Your task to perform on an android device: Open accessibility settings Image 0: 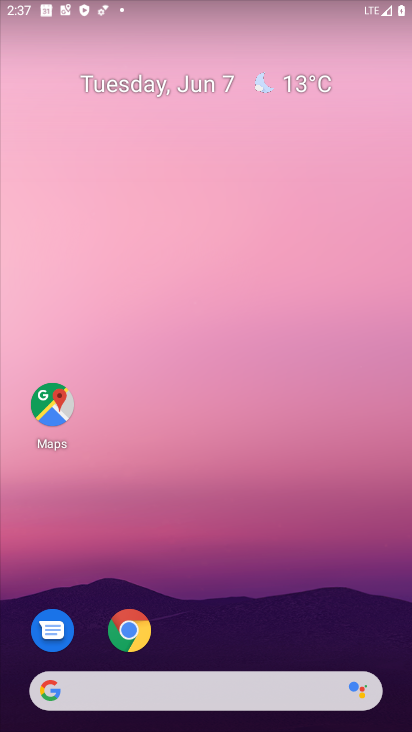
Step 0: drag from (279, 573) to (397, 32)
Your task to perform on an android device: Open accessibility settings Image 1: 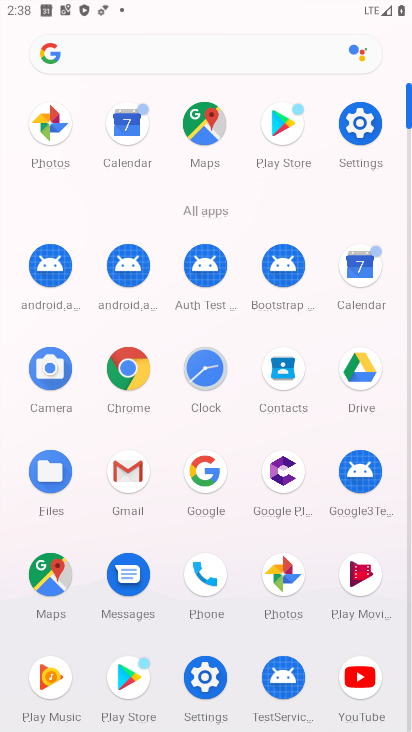
Step 1: drag from (272, 570) to (373, 132)
Your task to perform on an android device: Open accessibility settings Image 2: 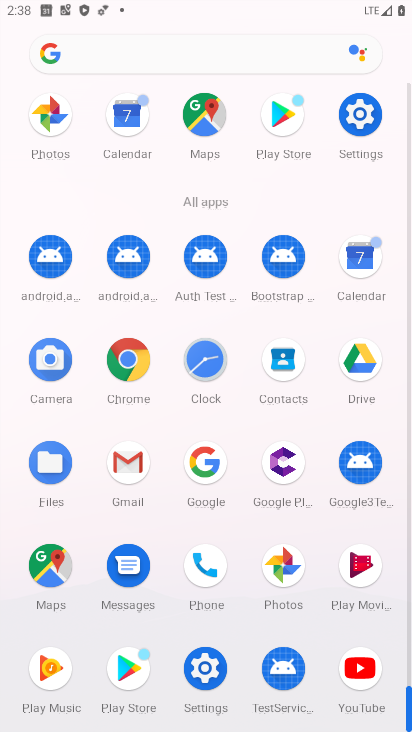
Step 2: click (373, 132)
Your task to perform on an android device: Open accessibility settings Image 3: 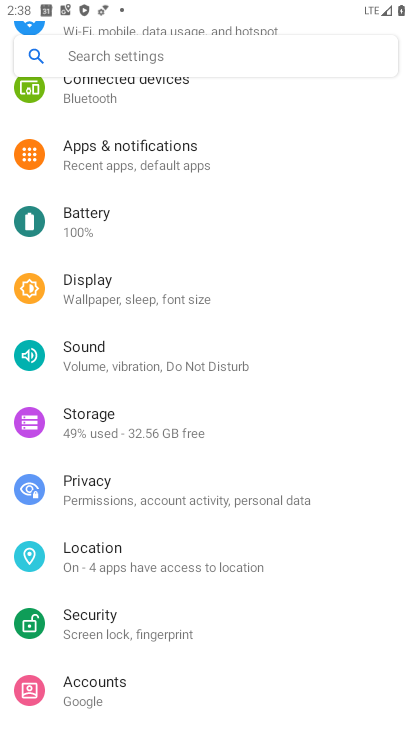
Step 3: click (356, 125)
Your task to perform on an android device: Open accessibility settings Image 4: 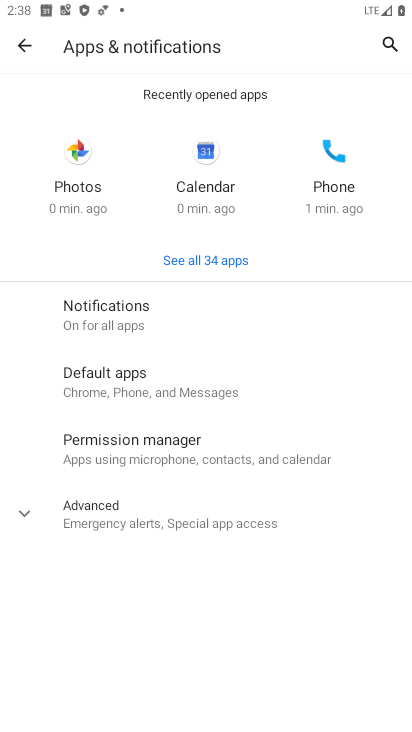
Step 4: press back button
Your task to perform on an android device: Open accessibility settings Image 5: 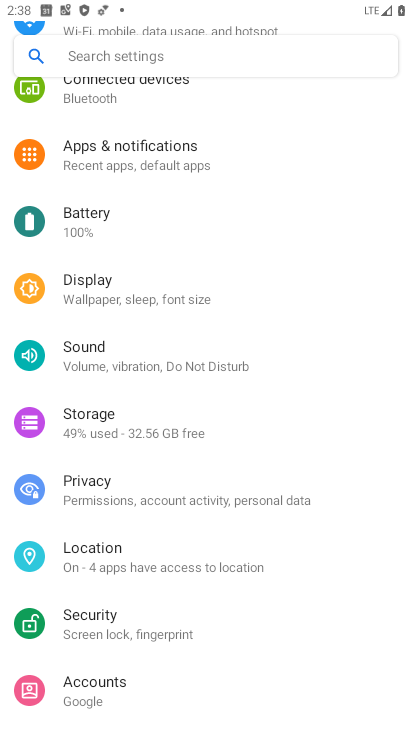
Step 5: drag from (293, 145) to (298, 508)
Your task to perform on an android device: Open accessibility settings Image 6: 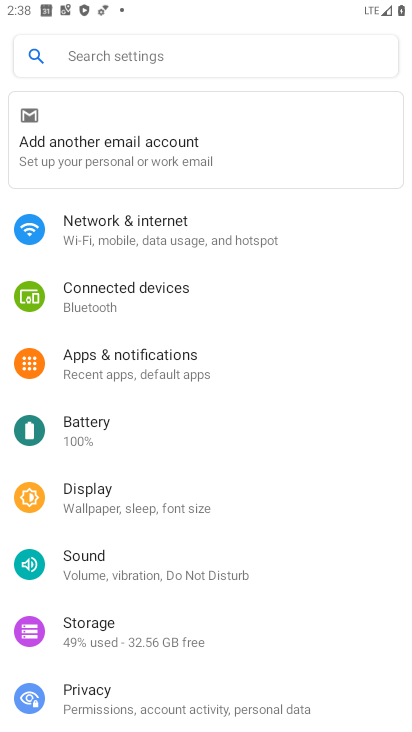
Step 6: drag from (372, 687) to (392, 392)
Your task to perform on an android device: Open accessibility settings Image 7: 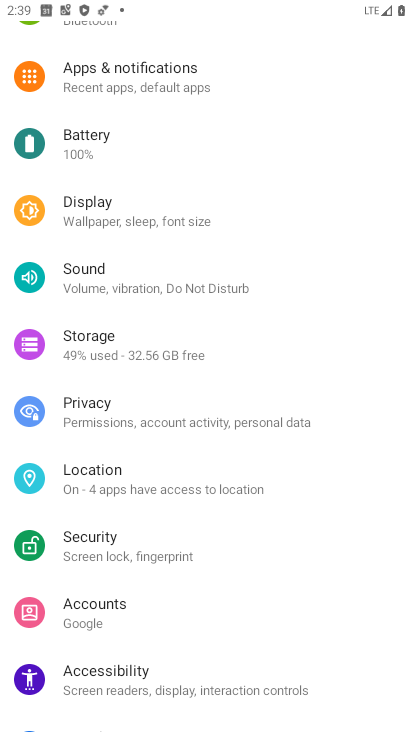
Step 7: click (135, 669)
Your task to perform on an android device: Open accessibility settings Image 8: 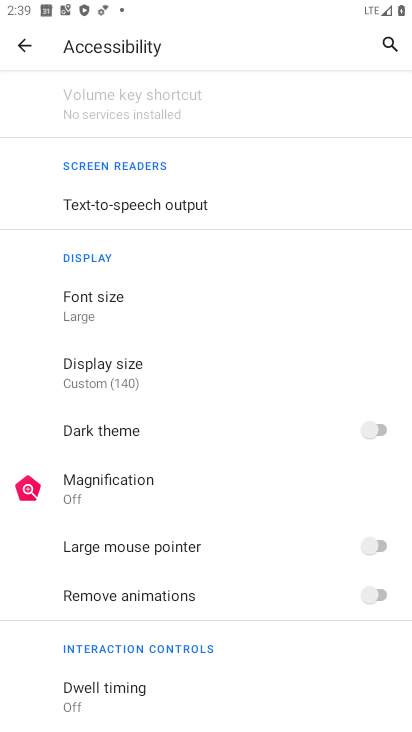
Step 8: task complete